Your task to perform on an android device: turn on wifi Image 0: 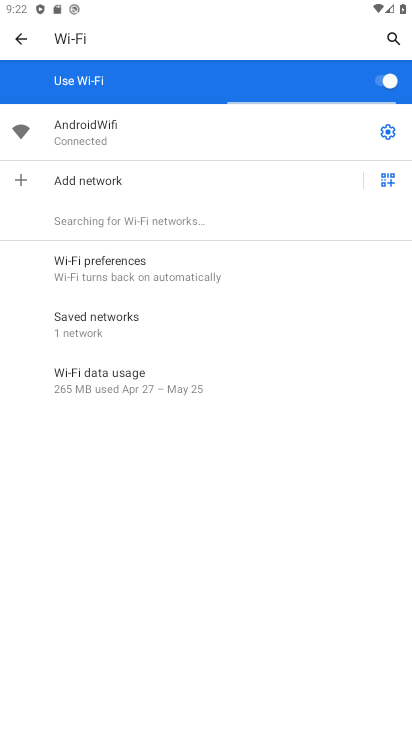
Step 0: press home button
Your task to perform on an android device: turn on wifi Image 1: 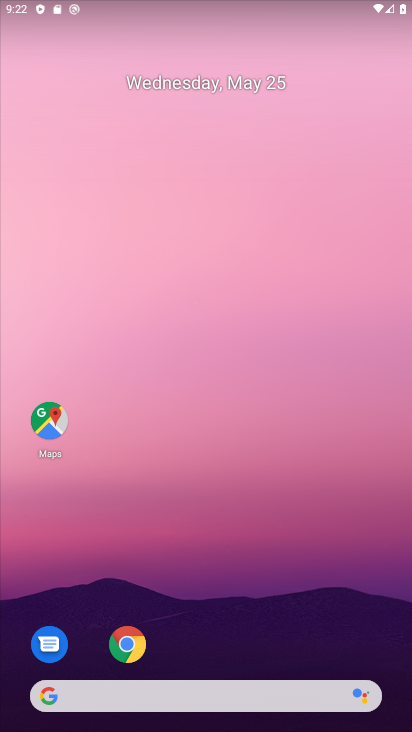
Step 1: drag from (337, 623) to (312, 0)
Your task to perform on an android device: turn on wifi Image 2: 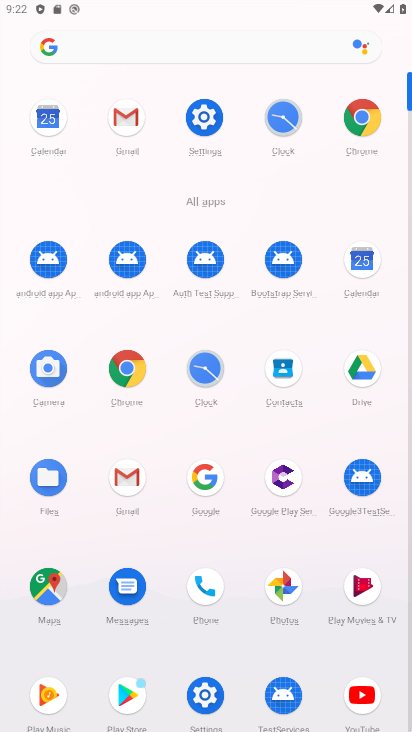
Step 2: click (199, 117)
Your task to perform on an android device: turn on wifi Image 3: 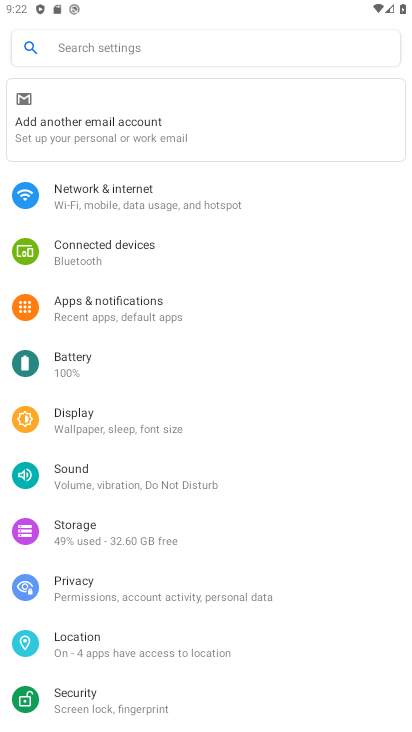
Step 3: click (98, 201)
Your task to perform on an android device: turn on wifi Image 4: 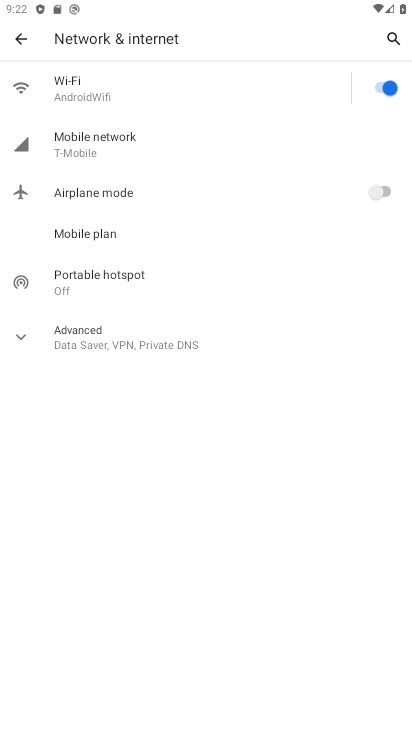
Step 4: task complete